Your task to perform on an android device: check data usage Image 0: 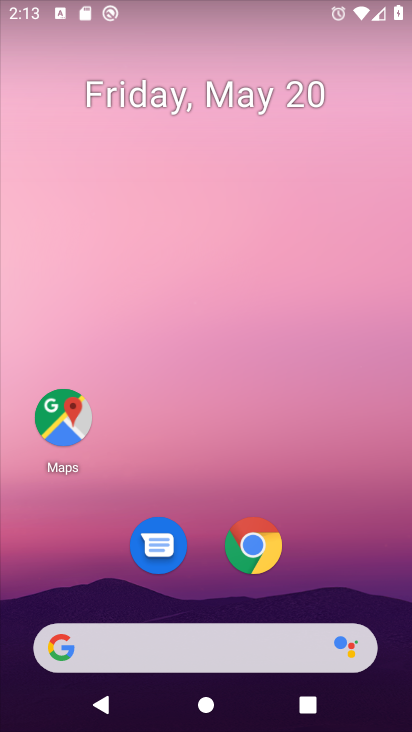
Step 0: drag from (239, 622) to (212, 62)
Your task to perform on an android device: check data usage Image 1: 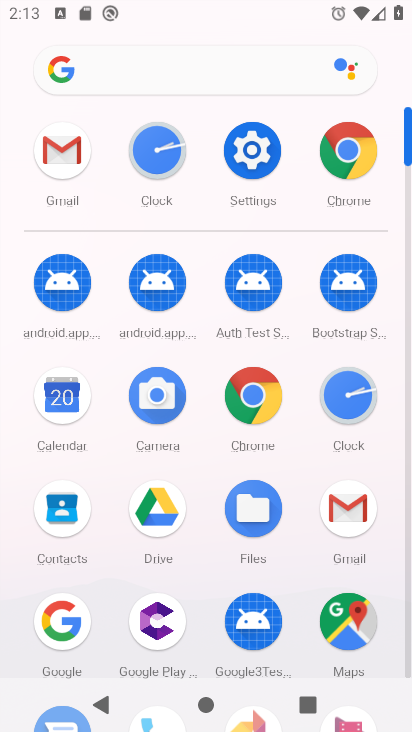
Step 1: click (262, 141)
Your task to perform on an android device: check data usage Image 2: 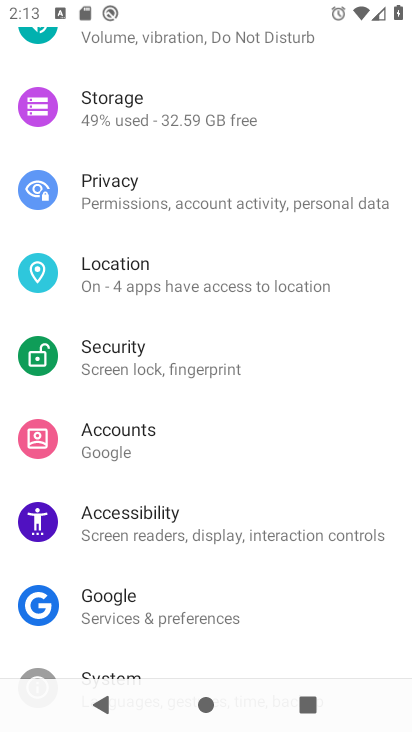
Step 2: drag from (199, 234) to (237, 583)
Your task to perform on an android device: check data usage Image 3: 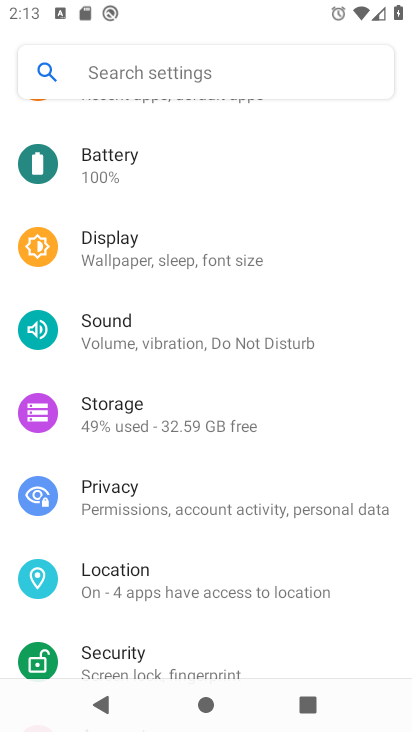
Step 3: drag from (170, 264) to (226, 641)
Your task to perform on an android device: check data usage Image 4: 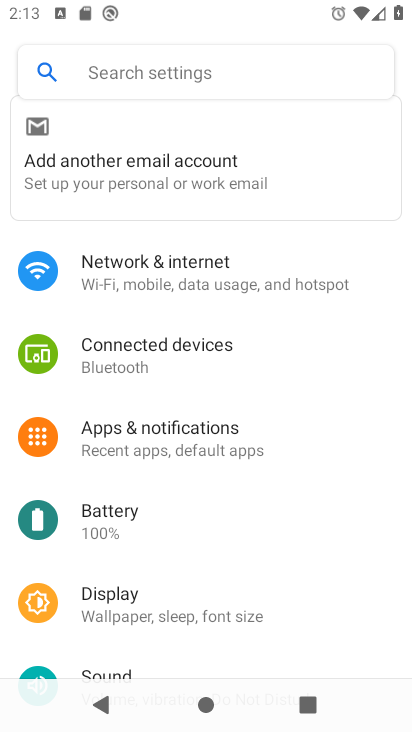
Step 4: click (217, 298)
Your task to perform on an android device: check data usage Image 5: 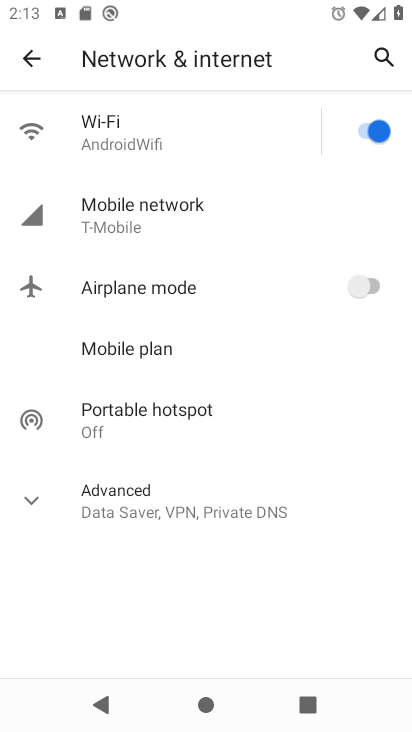
Step 5: click (170, 212)
Your task to perform on an android device: check data usage Image 6: 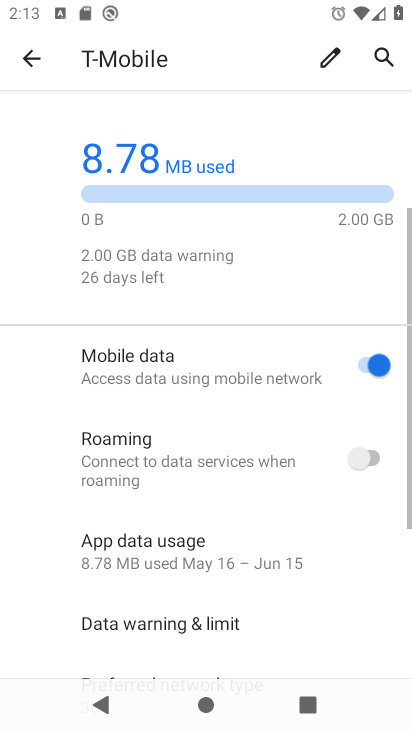
Step 6: drag from (299, 627) to (257, 167)
Your task to perform on an android device: check data usage Image 7: 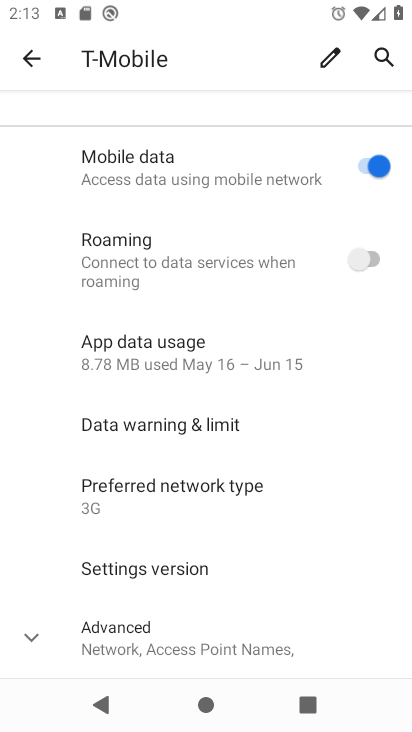
Step 7: click (257, 344)
Your task to perform on an android device: check data usage Image 8: 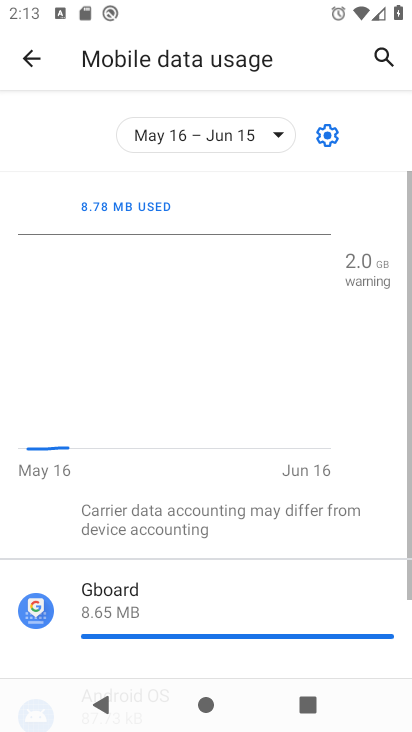
Step 8: task complete